Your task to perform on an android device: stop showing notifications on the lock screen Image 0: 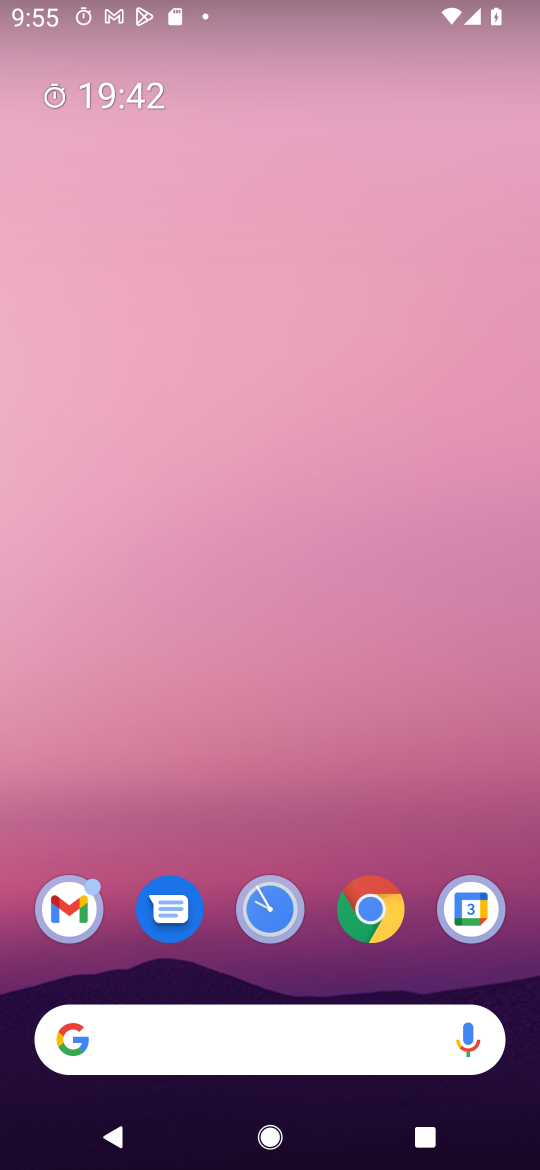
Step 0: drag from (397, 767) to (417, 190)
Your task to perform on an android device: stop showing notifications on the lock screen Image 1: 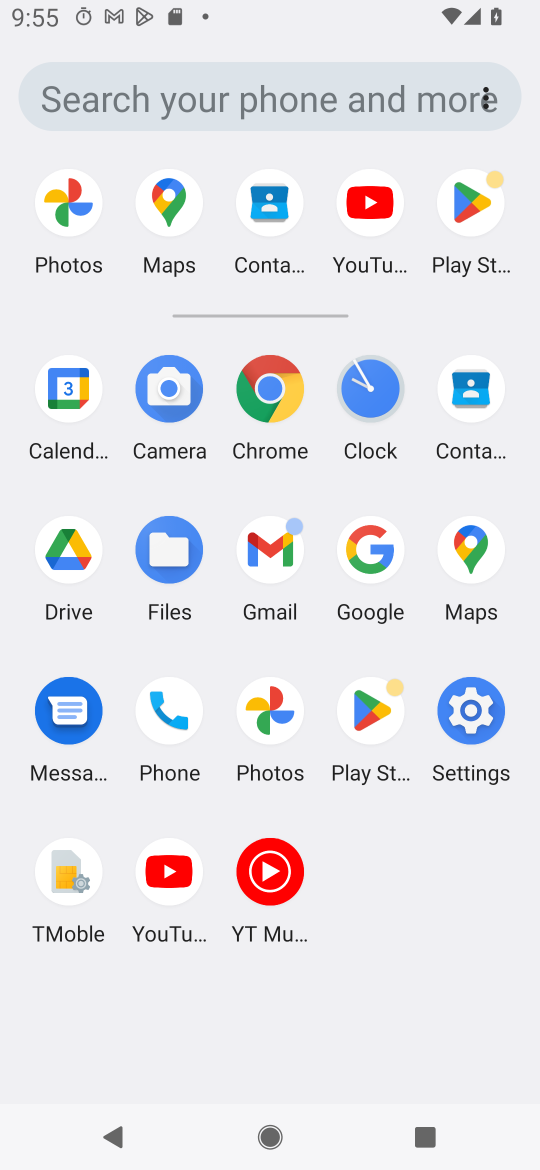
Step 1: click (479, 730)
Your task to perform on an android device: stop showing notifications on the lock screen Image 2: 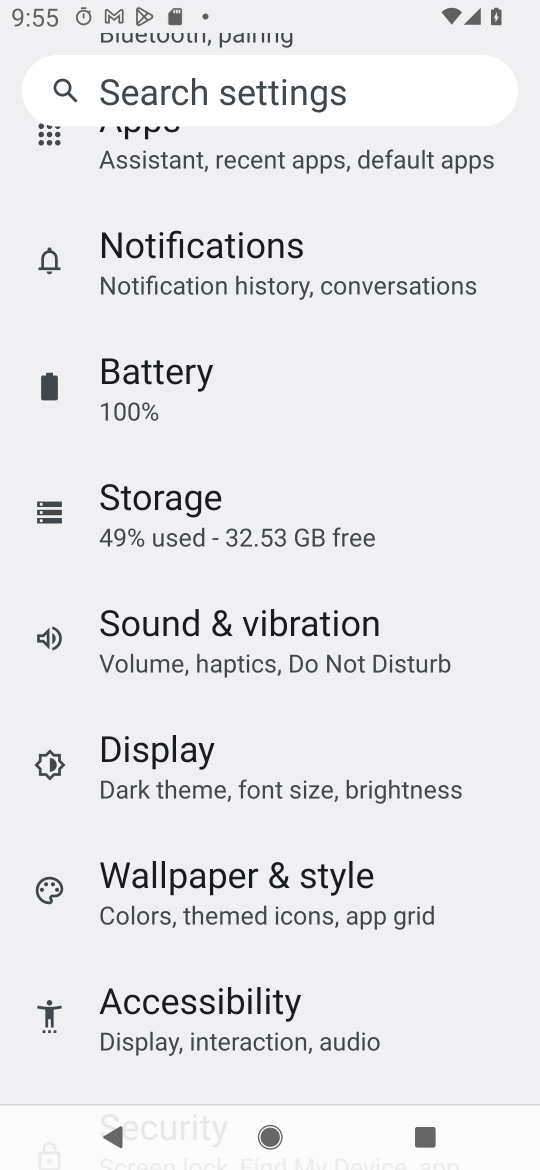
Step 2: drag from (488, 898) to (489, 650)
Your task to perform on an android device: stop showing notifications on the lock screen Image 3: 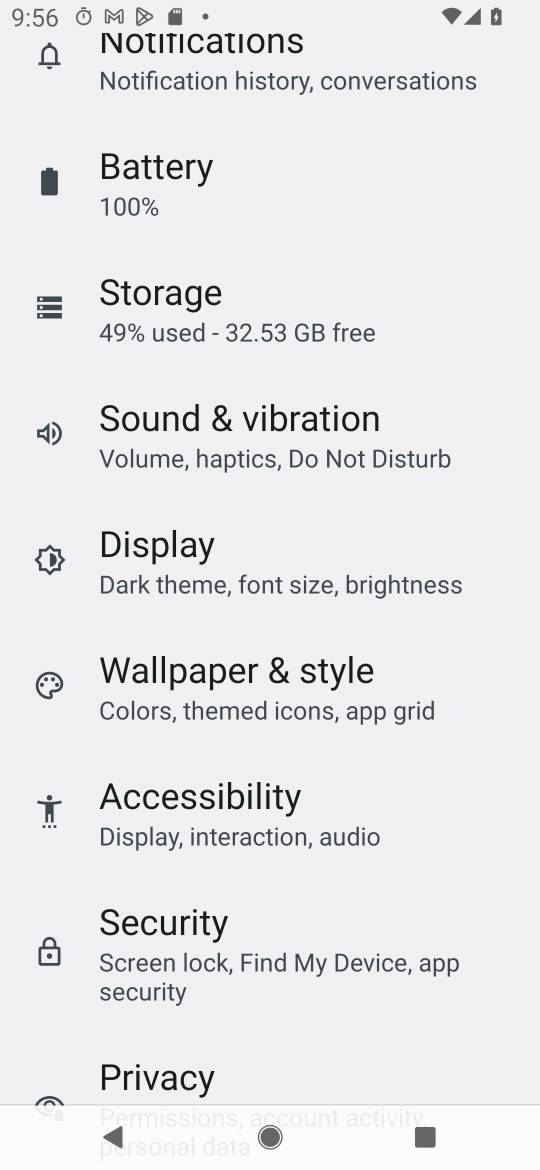
Step 3: drag from (460, 976) to (456, 616)
Your task to perform on an android device: stop showing notifications on the lock screen Image 4: 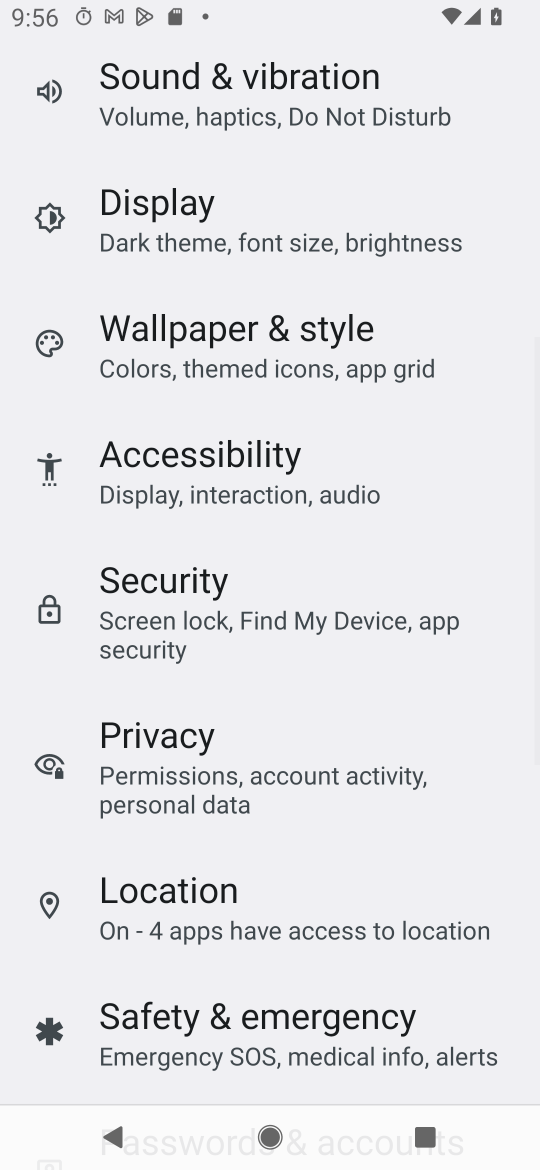
Step 4: drag from (455, 955) to (462, 705)
Your task to perform on an android device: stop showing notifications on the lock screen Image 5: 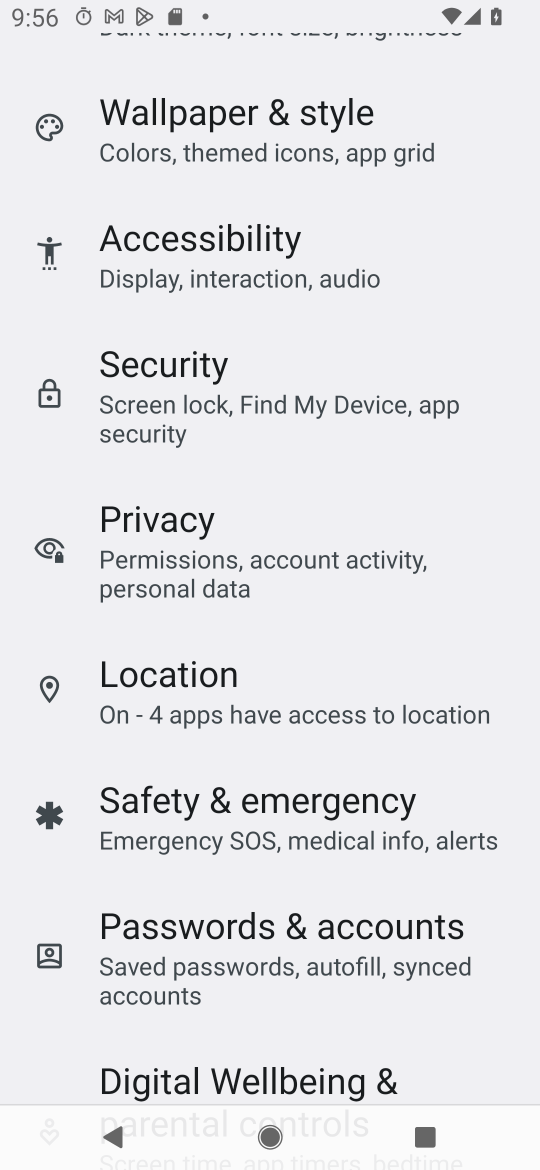
Step 5: drag from (467, 995) to (463, 757)
Your task to perform on an android device: stop showing notifications on the lock screen Image 6: 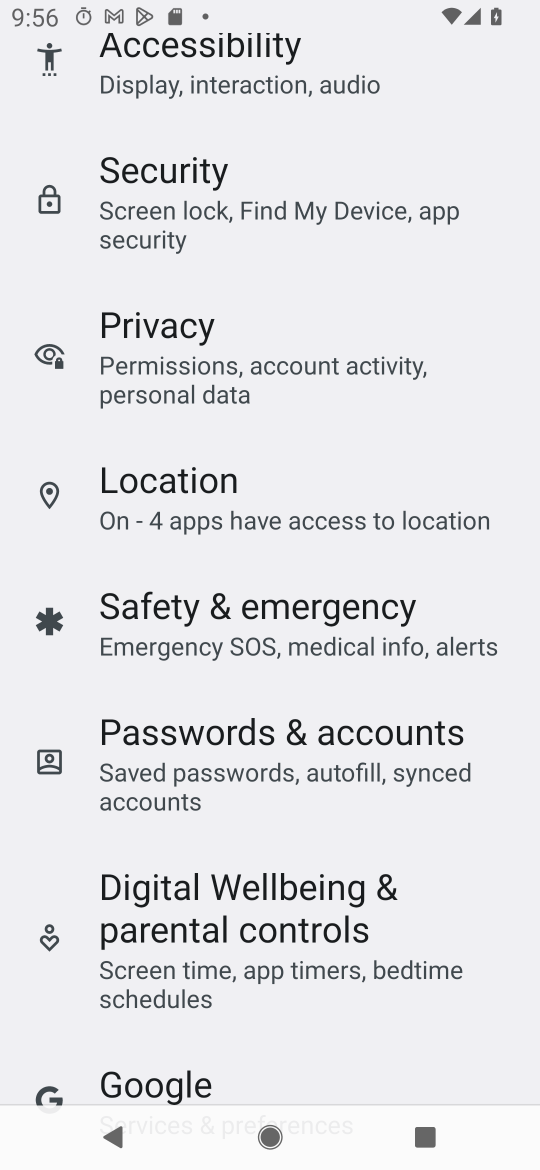
Step 6: drag from (468, 1024) to (484, 714)
Your task to perform on an android device: stop showing notifications on the lock screen Image 7: 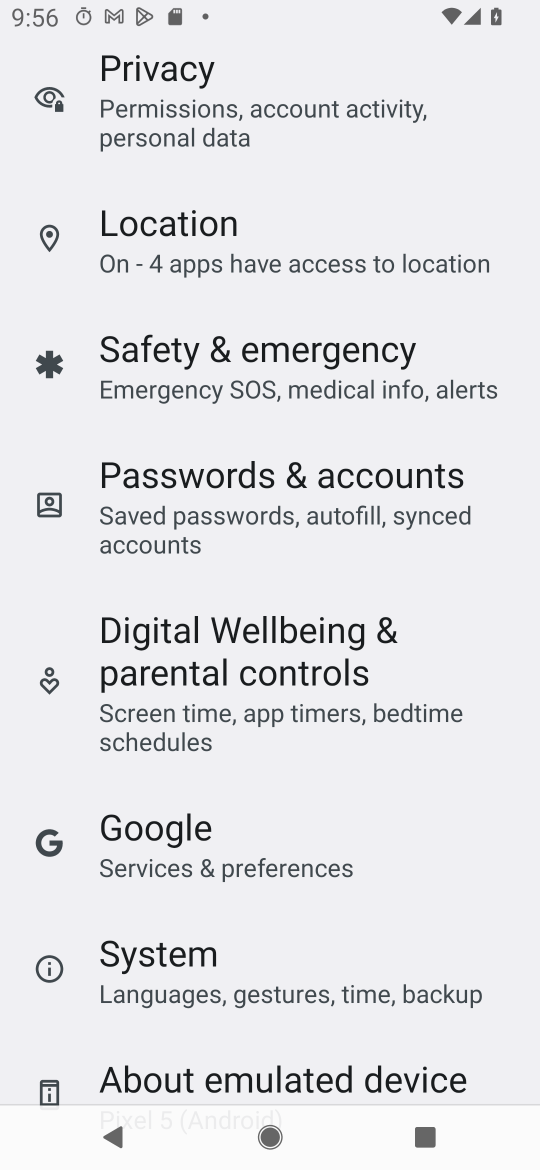
Step 7: drag from (471, 890) to (480, 708)
Your task to perform on an android device: stop showing notifications on the lock screen Image 8: 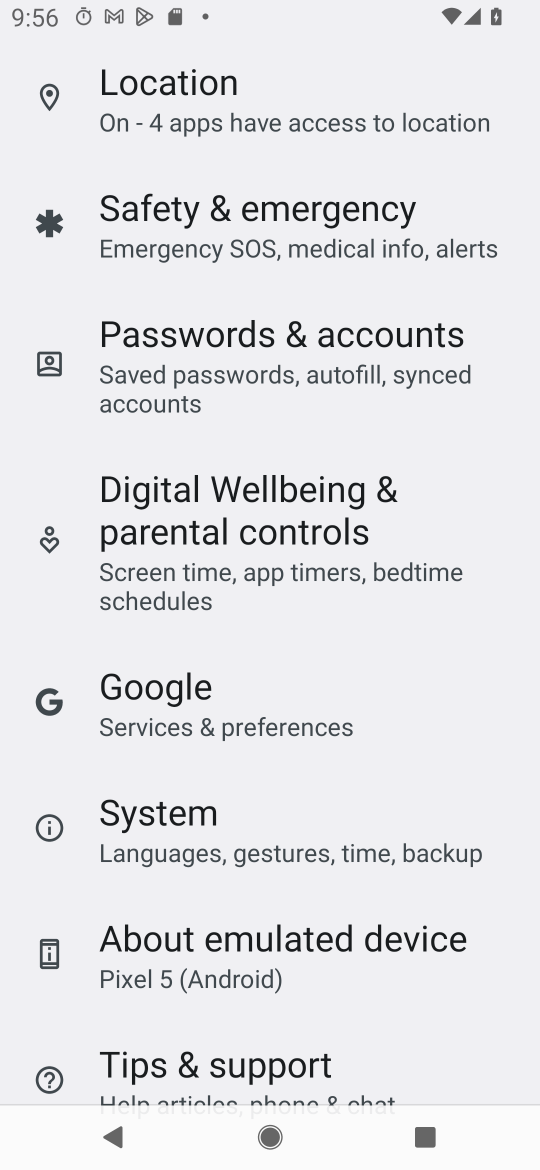
Step 8: drag from (492, 450) to (500, 637)
Your task to perform on an android device: stop showing notifications on the lock screen Image 9: 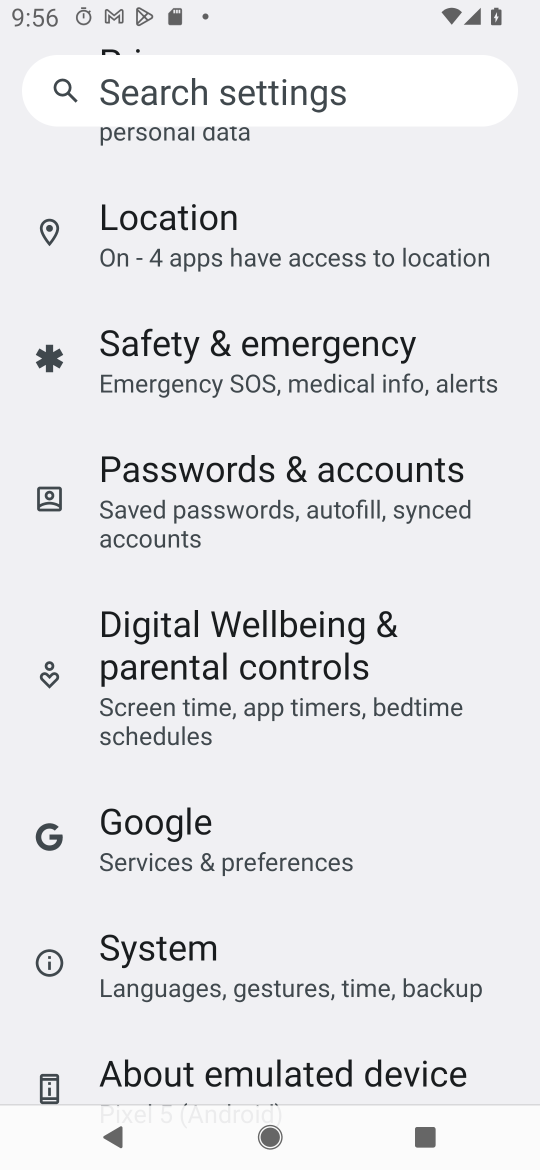
Step 9: drag from (500, 387) to (498, 612)
Your task to perform on an android device: stop showing notifications on the lock screen Image 10: 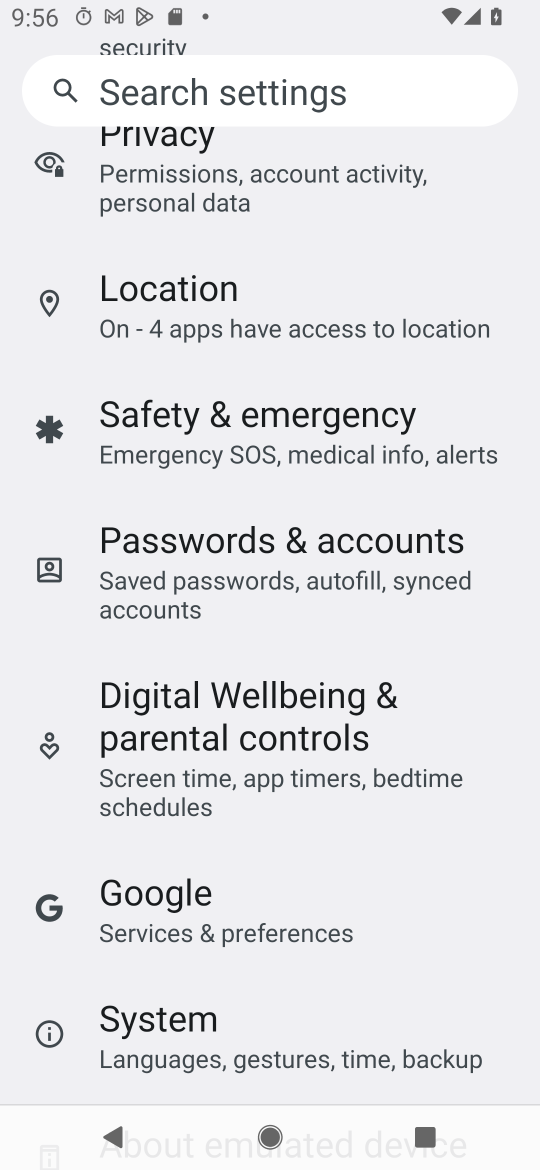
Step 10: drag from (483, 315) to (501, 564)
Your task to perform on an android device: stop showing notifications on the lock screen Image 11: 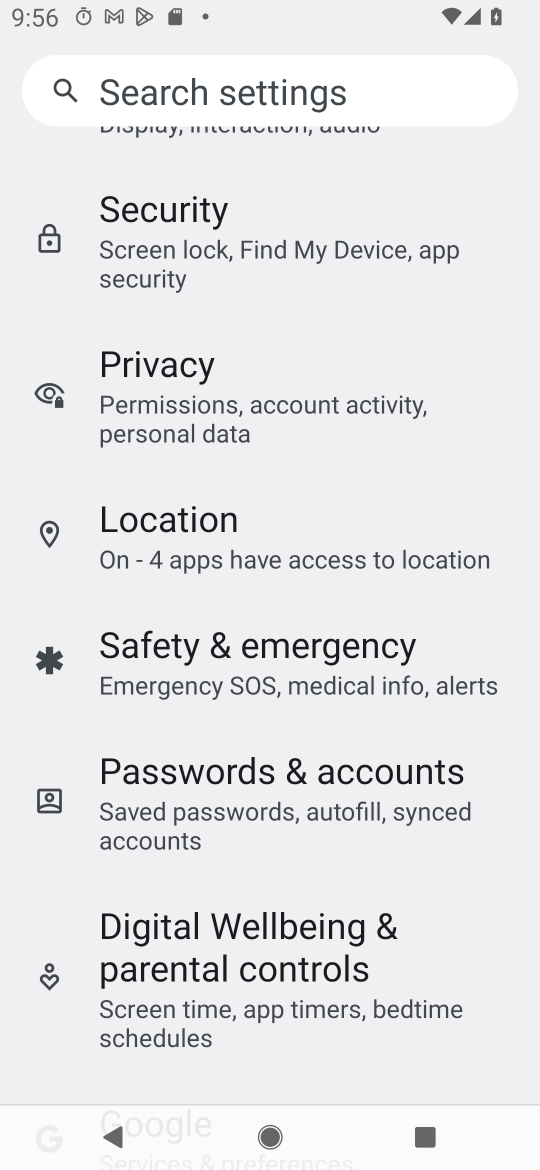
Step 11: drag from (489, 334) to (482, 568)
Your task to perform on an android device: stop showing notifications on the lock screen Image 12: 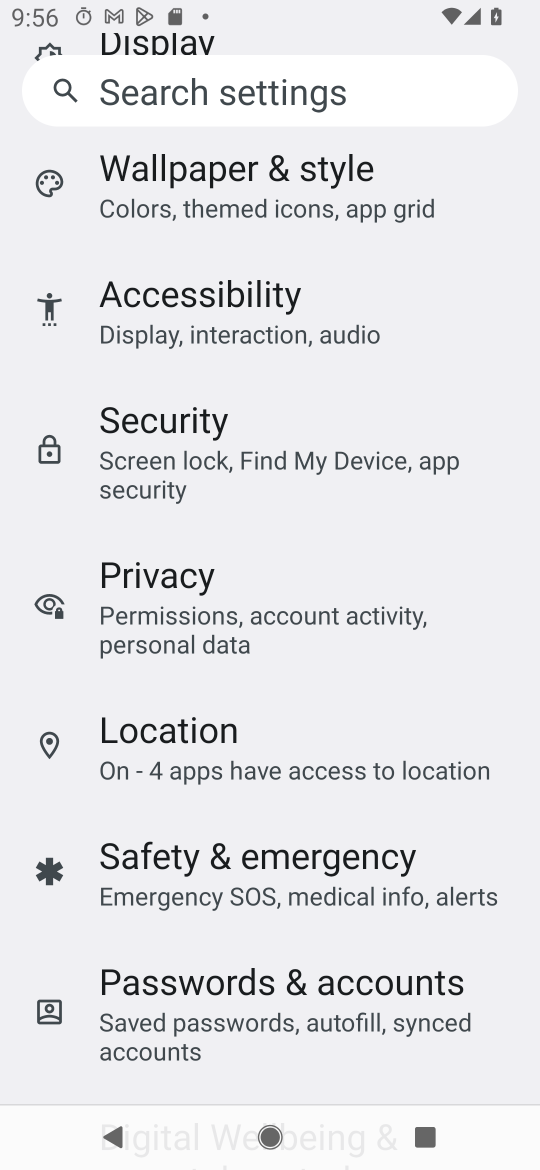
Step 12: drag from (480, 311) to (482, 544)
Your task to perform on an android device: stop showing notifications on the lock screen Image 13: 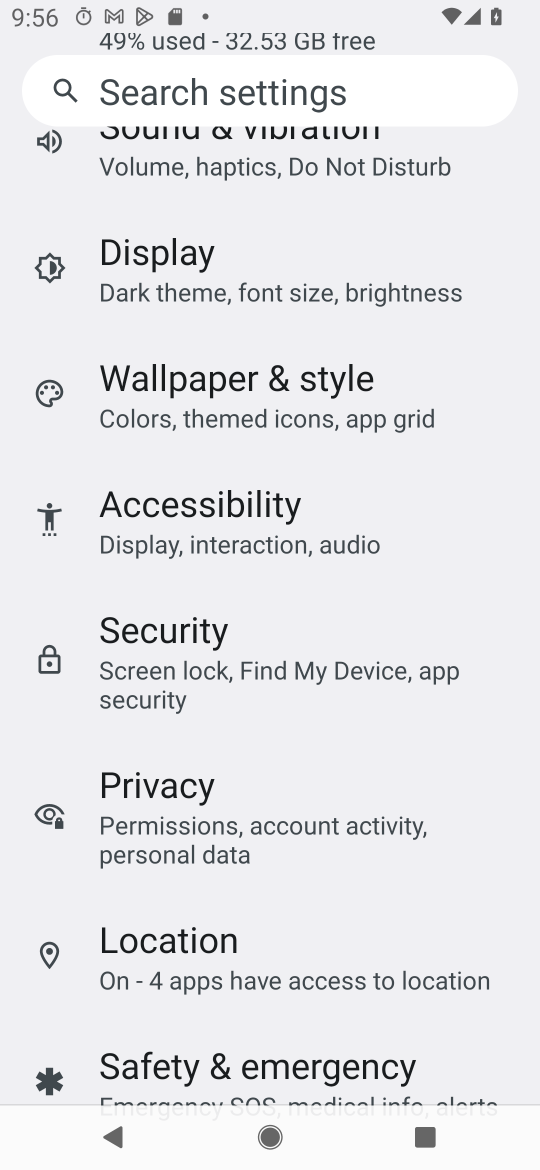
Step 13: drag from (482, 356) to (476, 589)
Your task to perform on an android device: stop showing notifications on the lock screen Image 14: 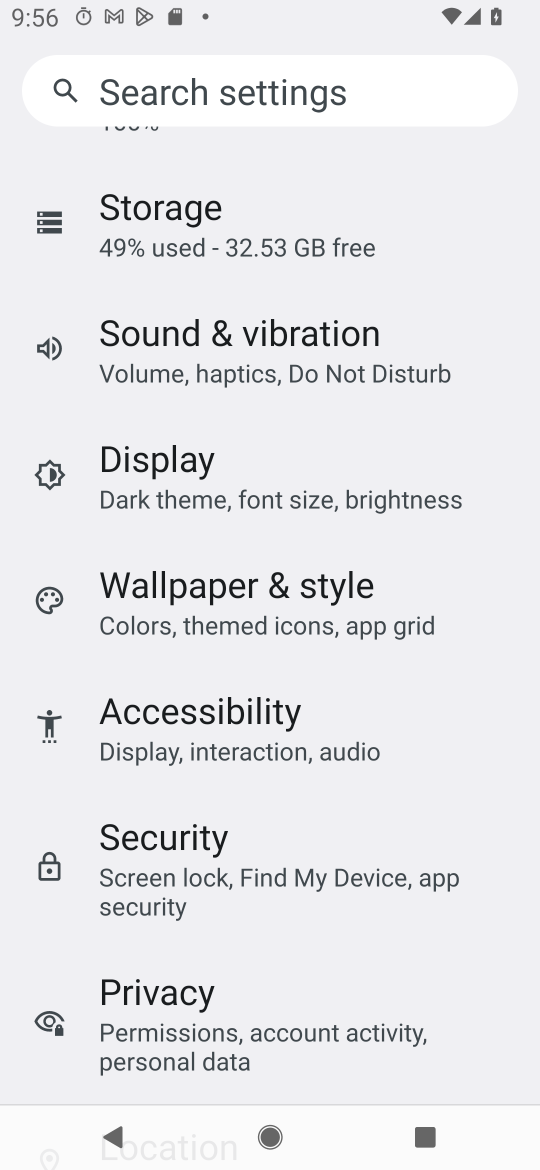
Step 14: drag from (452, 288) to (470, 579)
Your task to perform on an android device: stop showing notifications on the lock screen Image 15: 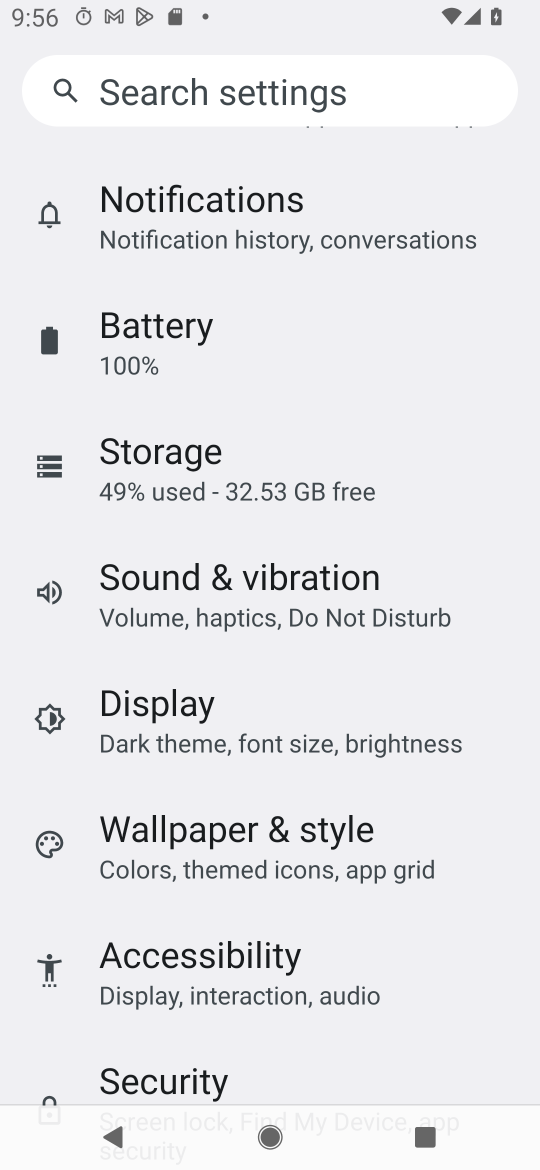
Step 15: drag from (454, 280) to (454, 519)
Your task to perform on an android device: stop showing notifications on the lock screen Image 16: 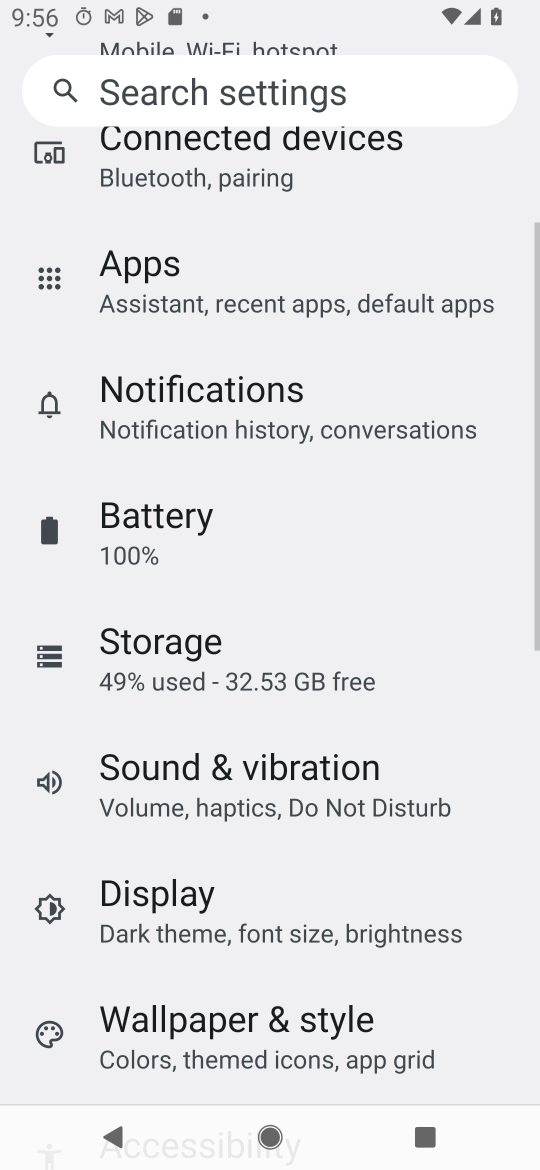
Step 16: click (386, 425)
Your task to perform on an android device: stop showing notifications on the lock screen Image 17: 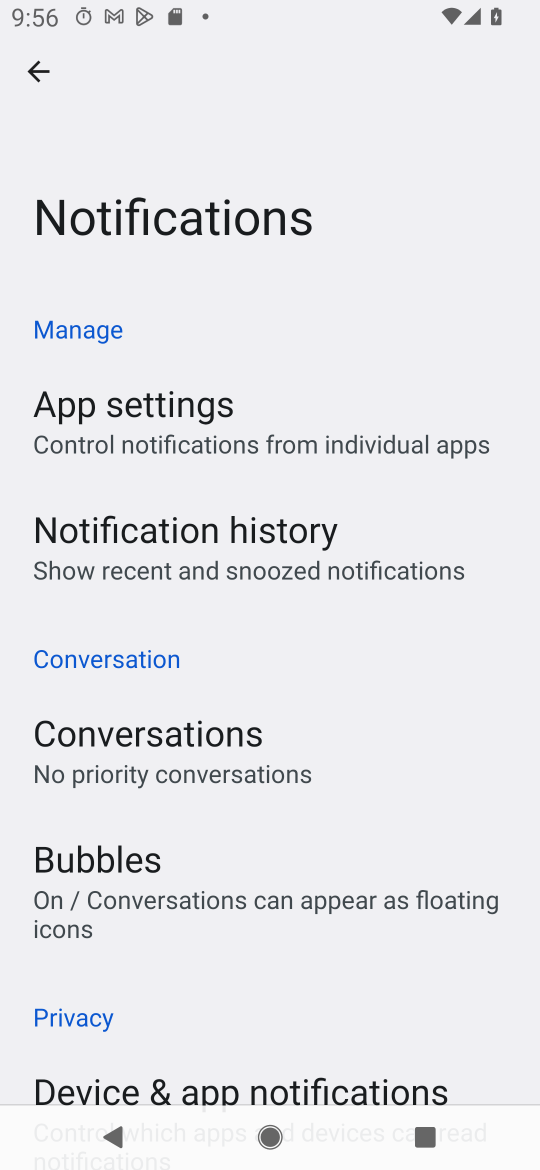
Step 17: drag from (400, 804) to (410, 532)
Your task to perform on an android device: stop showing notifications on the lock screen Image 18: 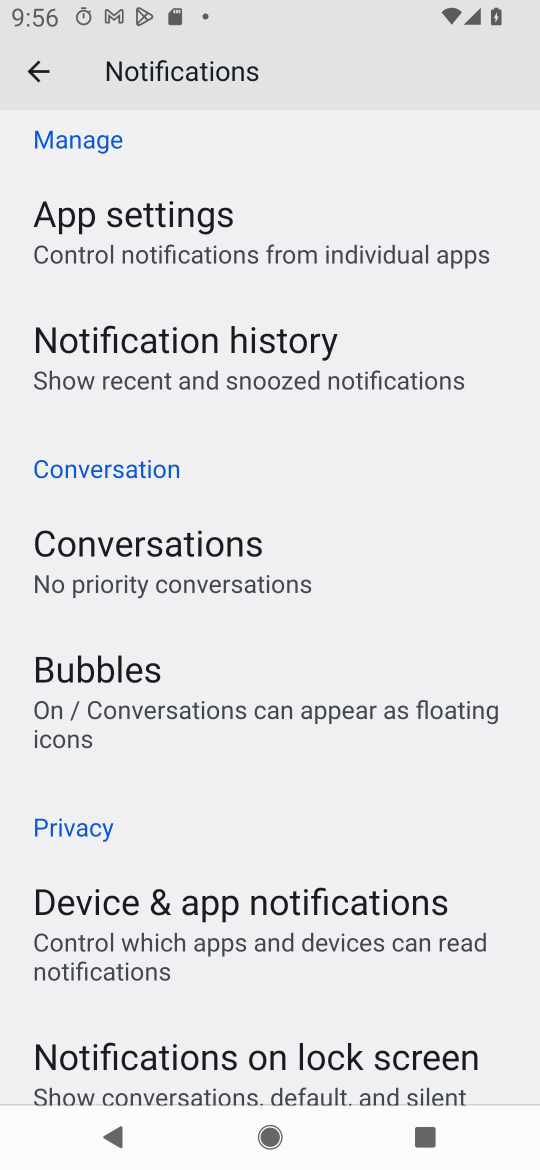
Step 18: drag from (444, 871) to (442, 628)
Your task to perform on an android device: stop showing notifications on the lock screen Image 19: 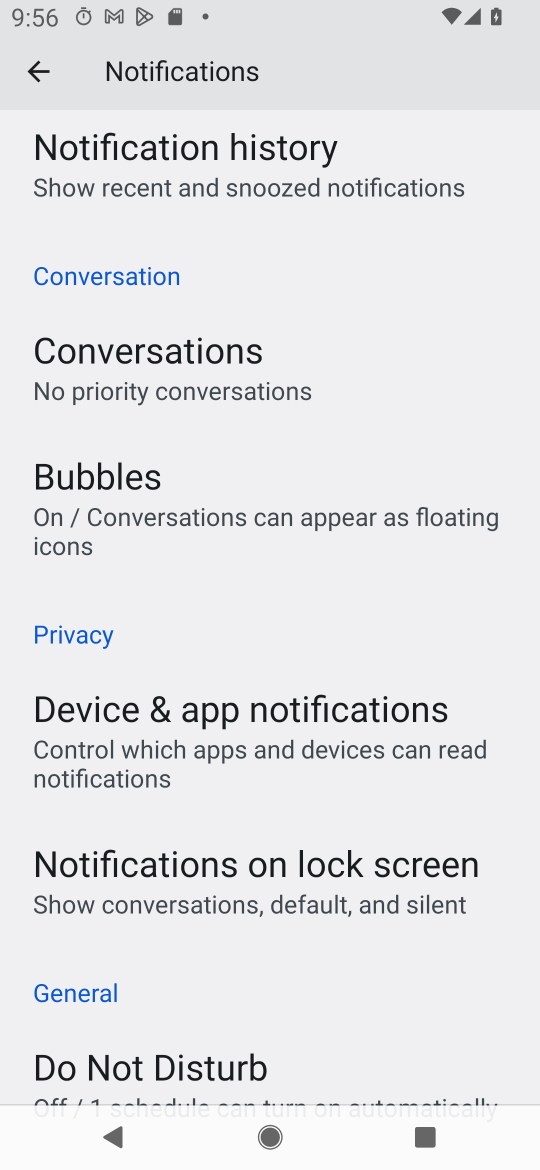
Step 19: click (309, 876)
Your task to perform on an android device: stop showing notifications on the lock screen Image 20: 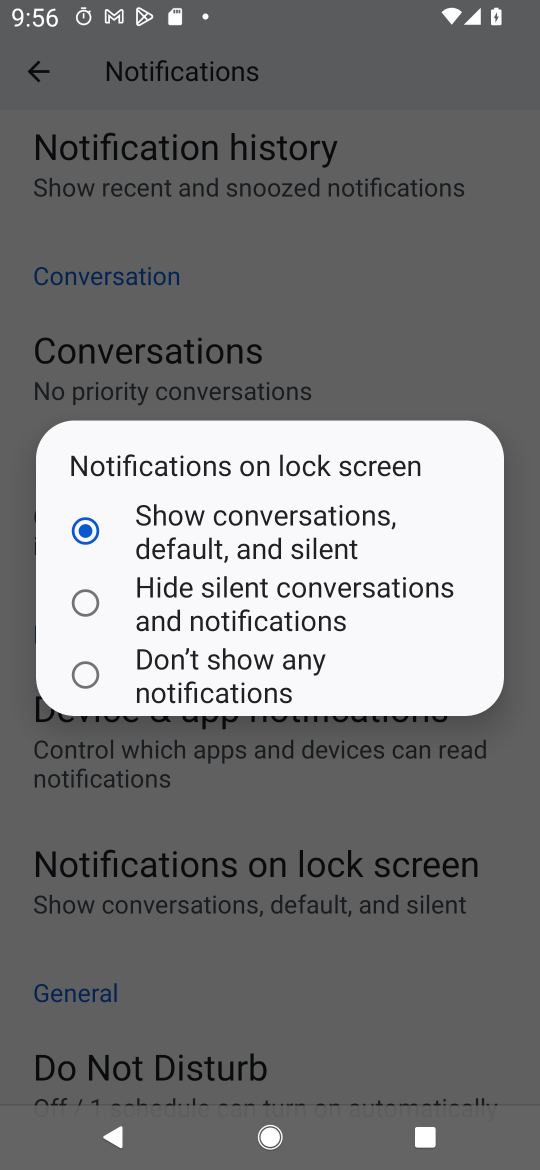
Step 20: click (239, 674)
Your task to perform on an android device: stop showing notifications on the lock screen Image 21: 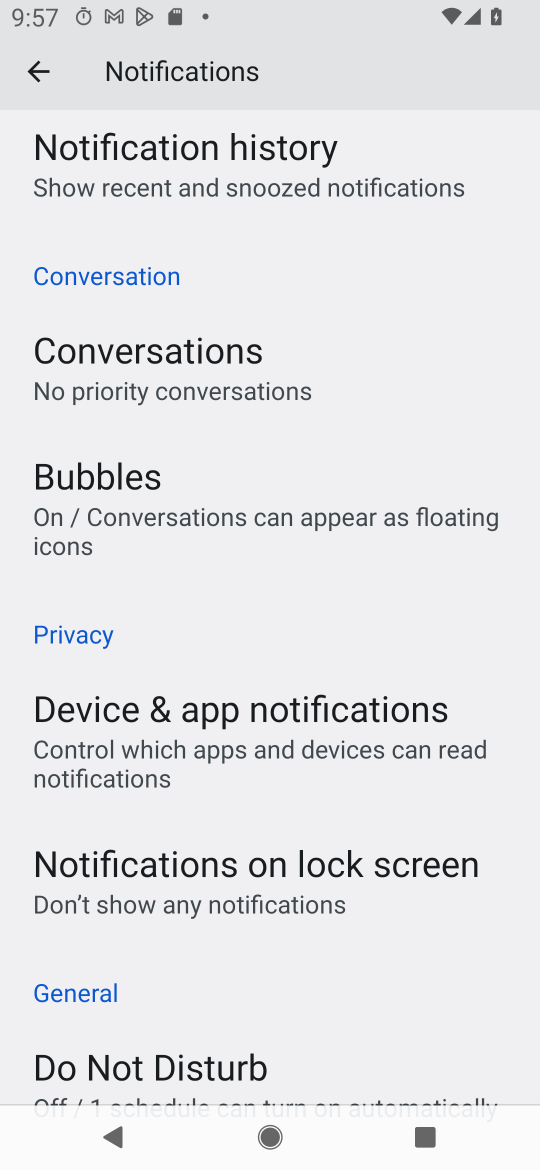
Step 21: task complete